Your task to perform on an android device: Search for a dining table on Crate & Barrel Image 0: 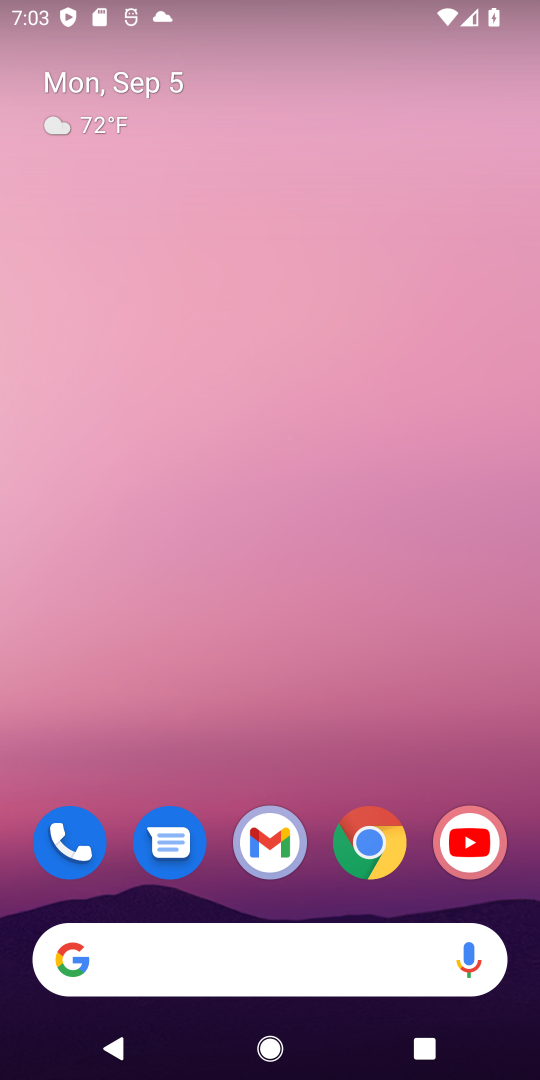
Step 0: click (373, 842)
Your task to perform on an android device: Search for a dining table on Crate & Barrel Image 1: 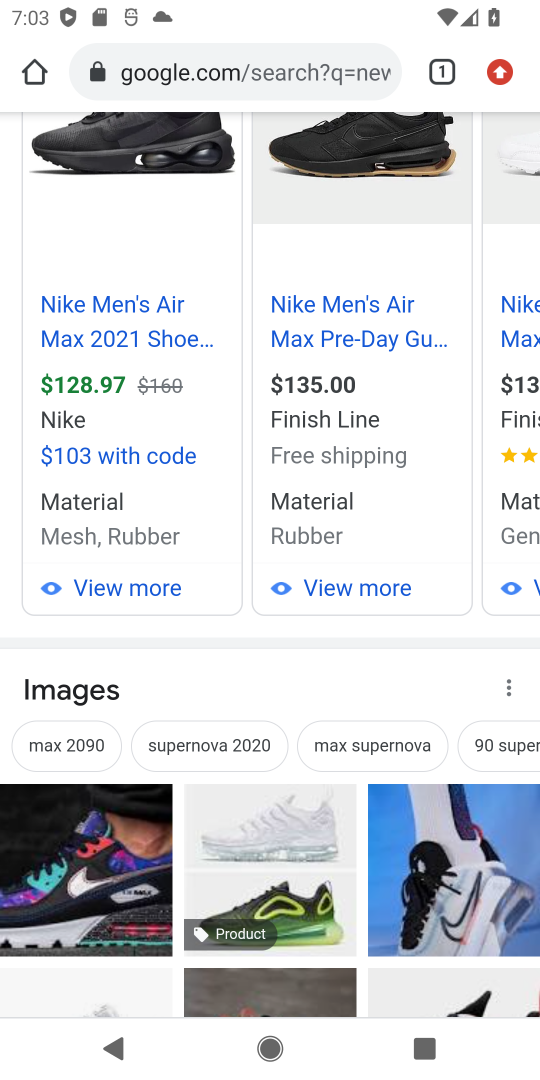
Step 1: click (256, 75)
Your task to perform on an android device: Search for a dining table on Crate & Barrel Image 2: 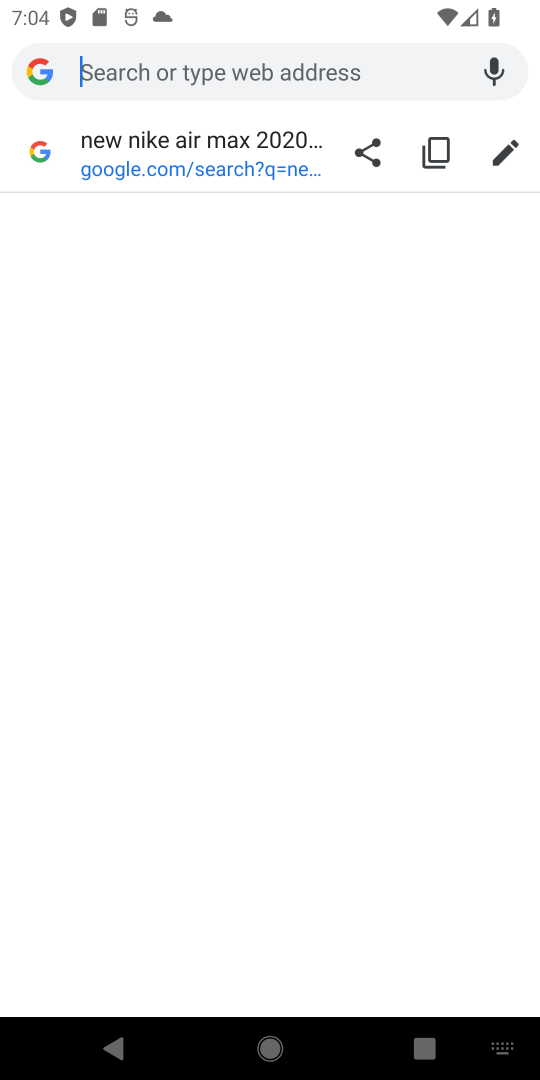
Step 2: type "Crate & Barrel"
Your task to perform on an android device: Search for a dining table on Crate & Barrel Image 3: 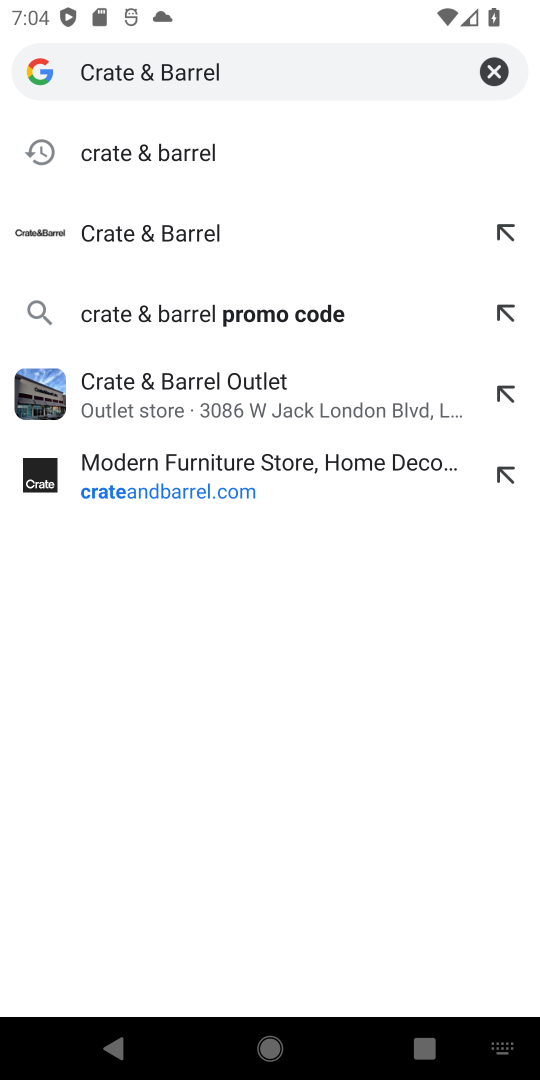
Step 3: click (199, 245)
Your task to perform on an android device: Search for a dining table on Crate & Barrel Image 4: 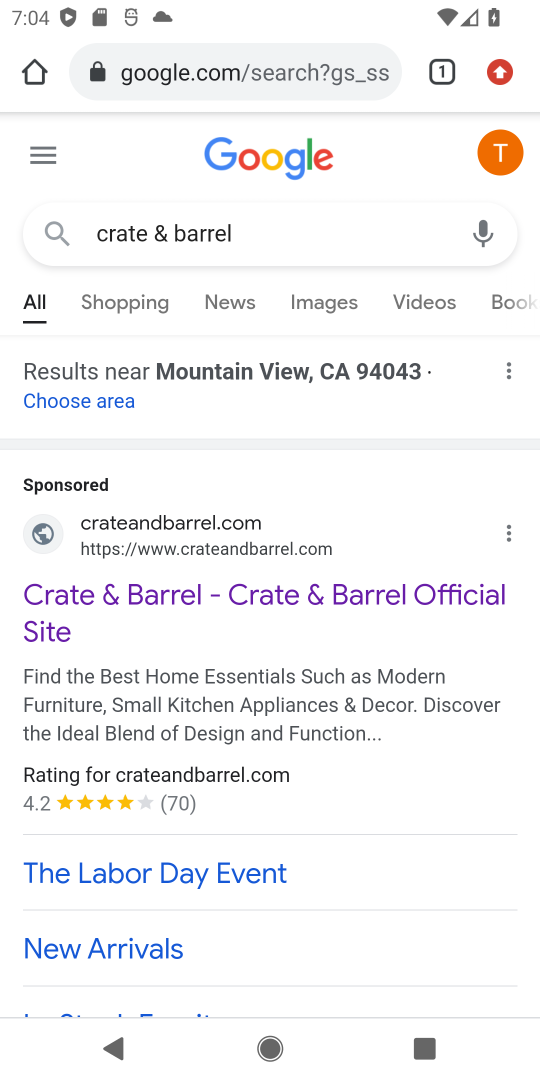
Step 4: click (125, 643)
Your task to perform on an android device: Search for a dining table on Crate & Barrel Image 5: 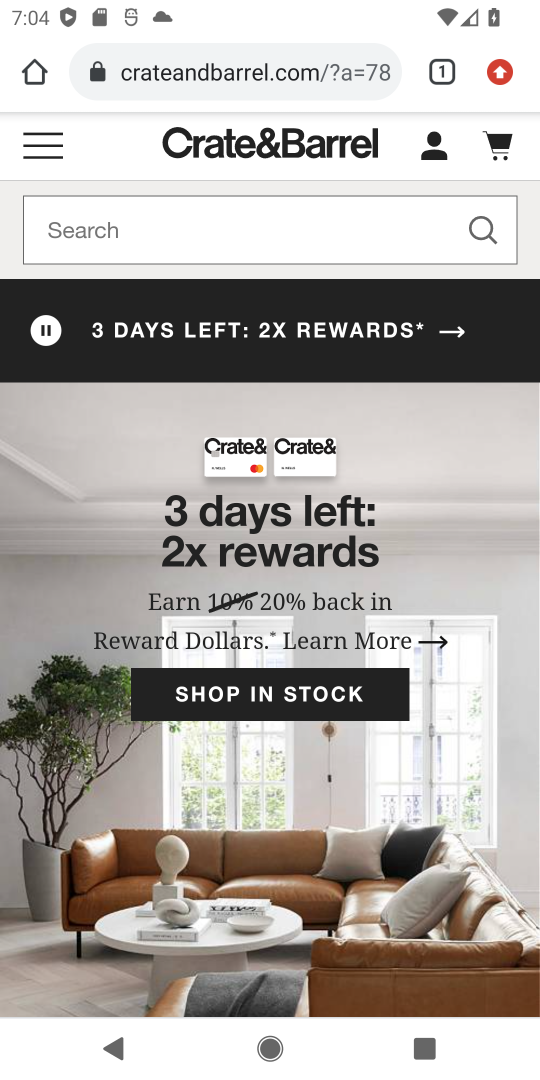
Step 5: click (176, 235)
Your task to perform on an android device: Search for a dining table on Crate & Barrel Image 6: 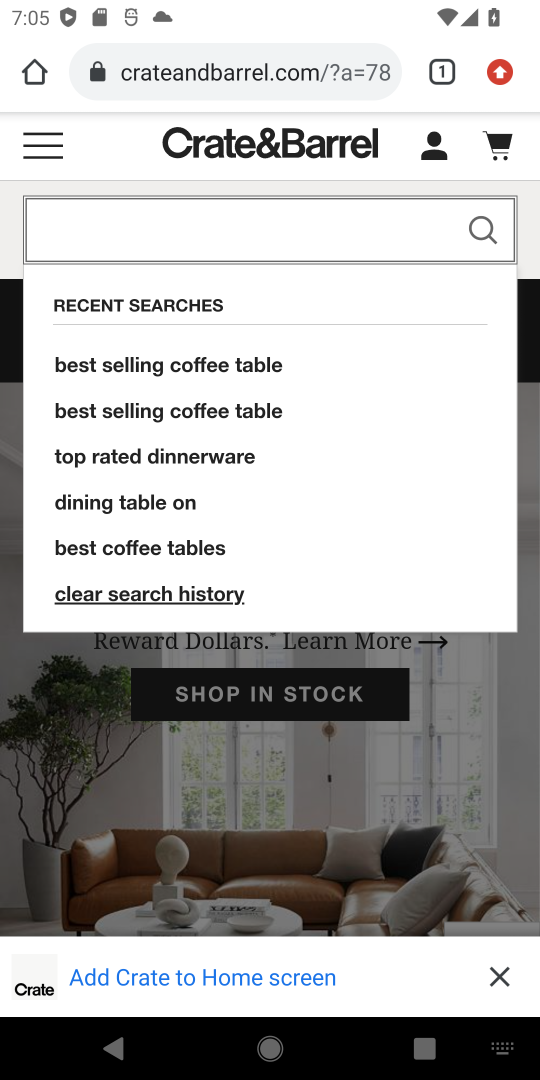
Step 6: type "dining table"
Your task to perform on an android device: Search for a dining table on Crate & Barrel Image 7: 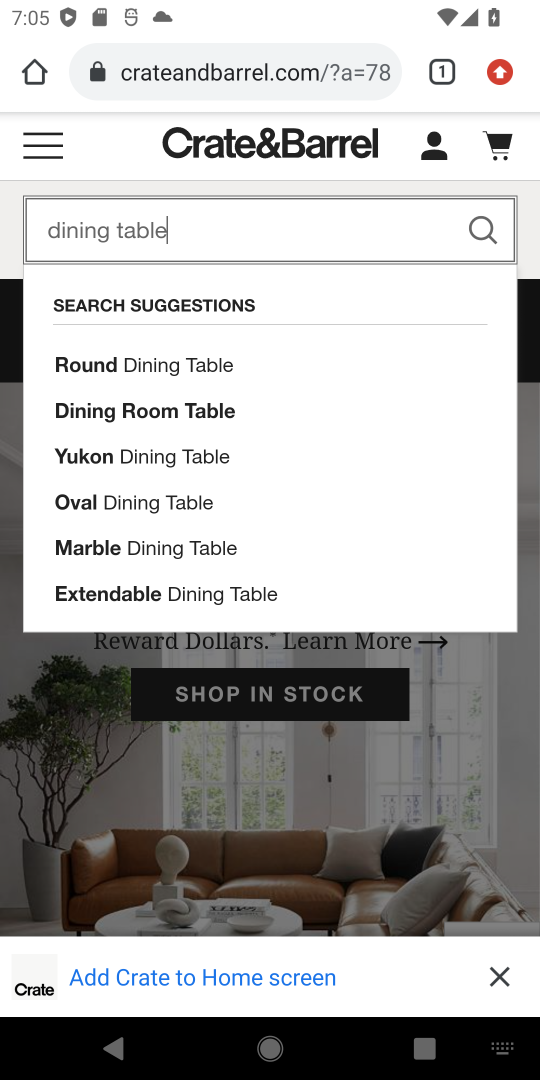
Step 7: click (477, 240)
Your task to perform on an android device: Search for a dining table on Crate & Barrel Image 8: 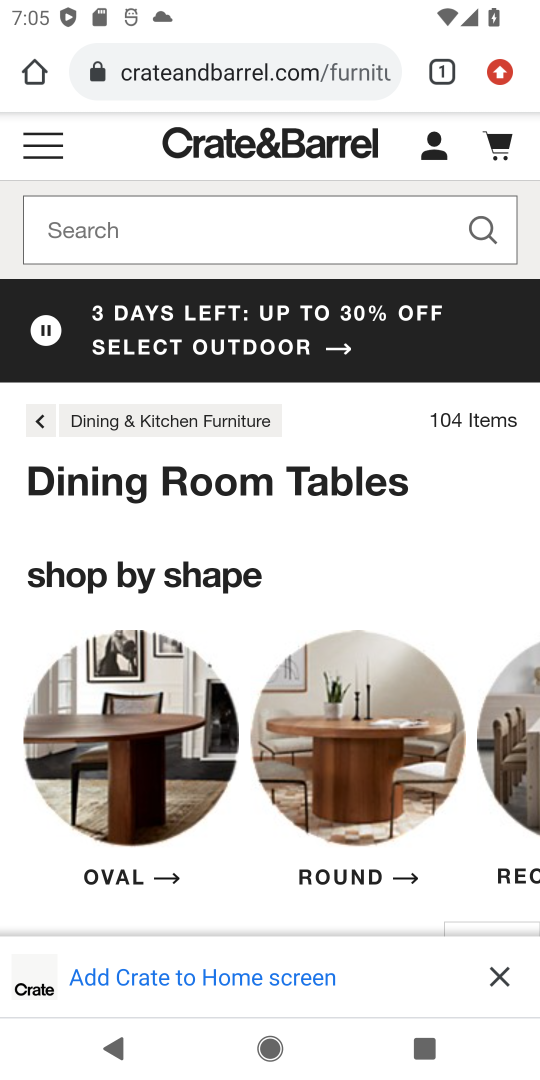
Step 8: task complete